Your task to perform on an android device: turn on wifi Image 0: 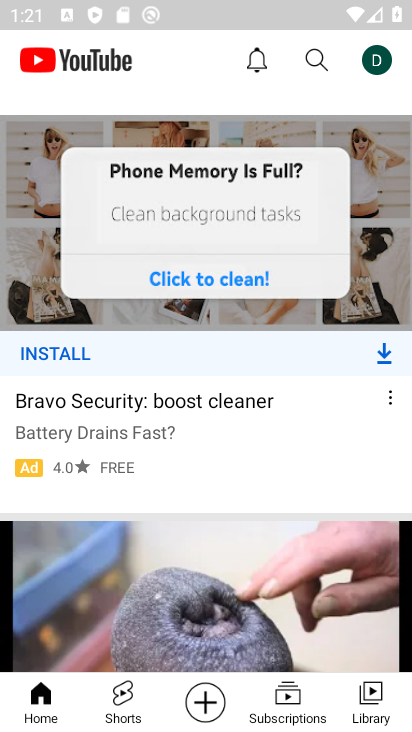
Step 0: drag from (257, 417) to (320, 225)
Your task to perform on an android device: turn on wifi Image 1: 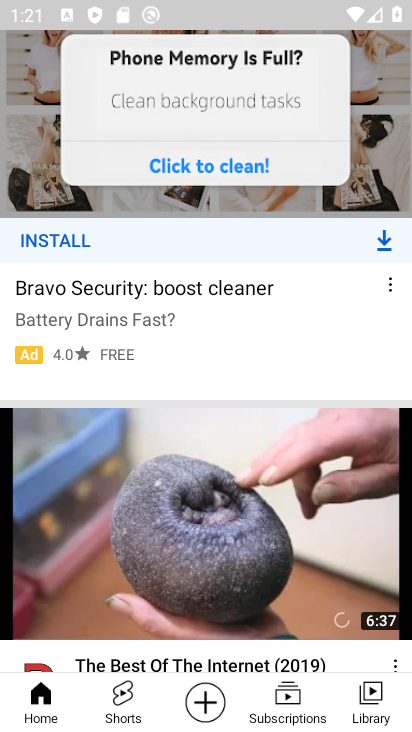
Step 1: press home button
Your task to perform on an android device: turn on wifi Image 2: 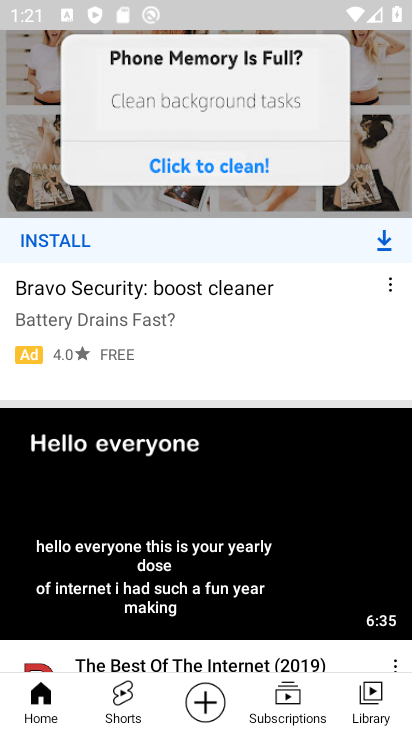
Step 2: click (277, 77)
Your task to perform on an android device: turn on wifi Image 3: 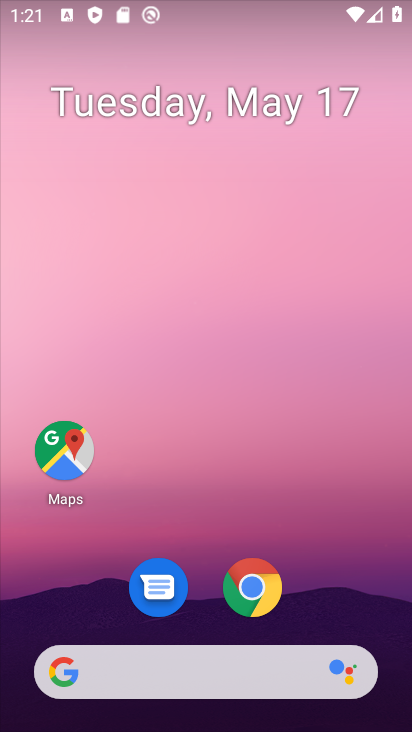
Step 3: drag from (206, 603) to (243, 187)
Your task to perform on an android device: turn on wifi Image 4: 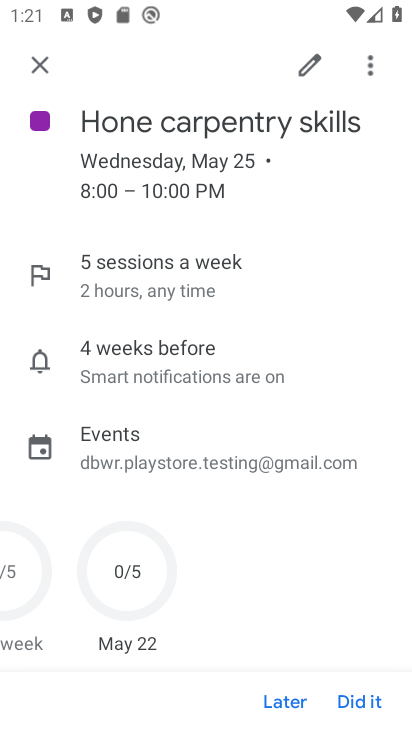
Step 4: drag from (202, 633) to (214, 203)
Your task to perform on an android device: turn on wifi Image 5: 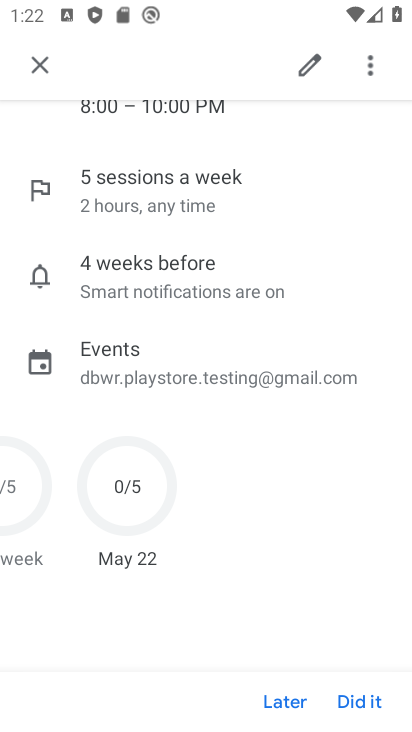
Step 5: click (30, 70)
Your task to perform on an android device: turn on wifi Image 6: 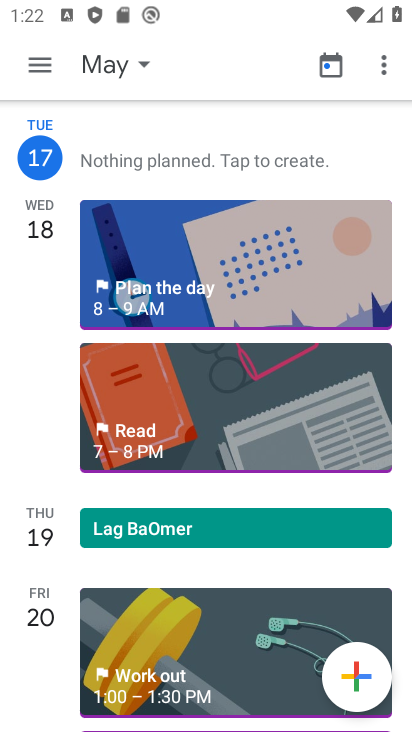
Step 6: drag from (180, 519) to (193, 90)
Your task to perform on an android device: turn on wifi Image 7: 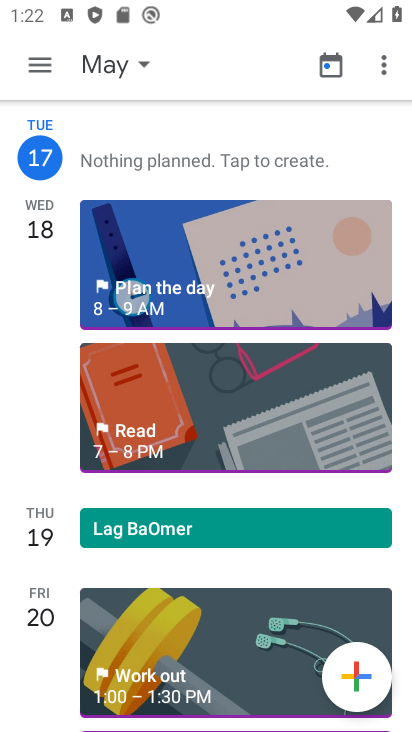
Step 7: press home button
Your task to perform on an android device: turn on wifi Image 8: 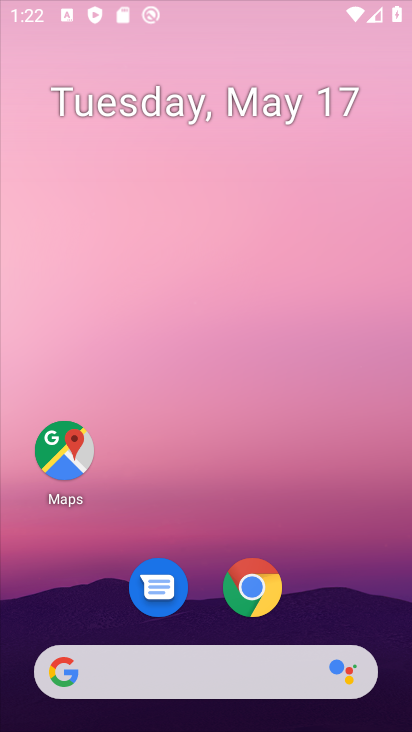
Step 8: drag from (196, 635) to (280, 137)
Your task to perform on an android device: turn on wifi Image 9: 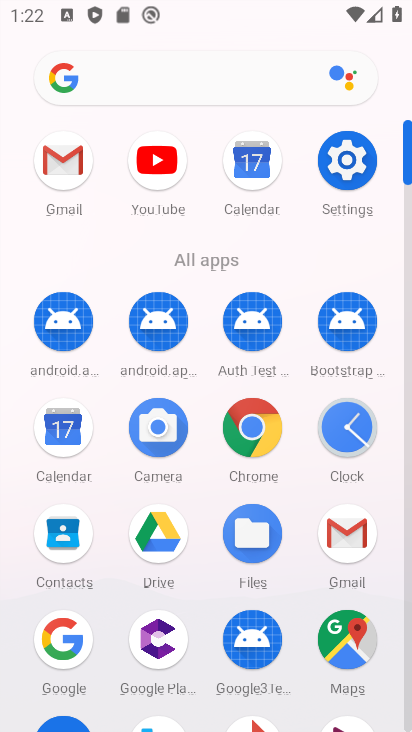
Step 9: click (359, 157)
Your task to perform on an android device: turn on wifi Image 10: 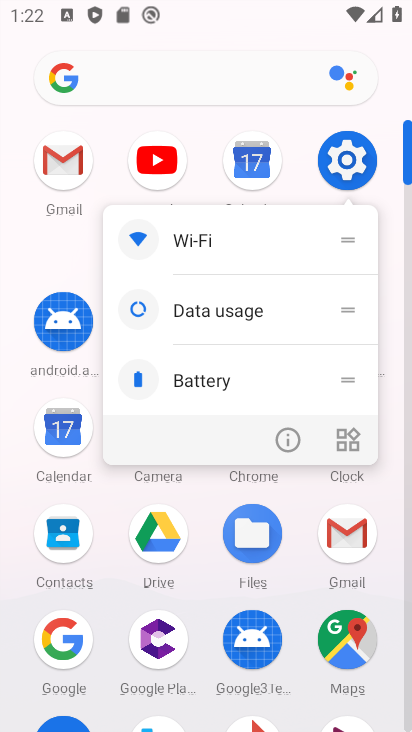
Step 10: click (179, 247)
Your task to perform on an android device: turn on wifi Image 11: 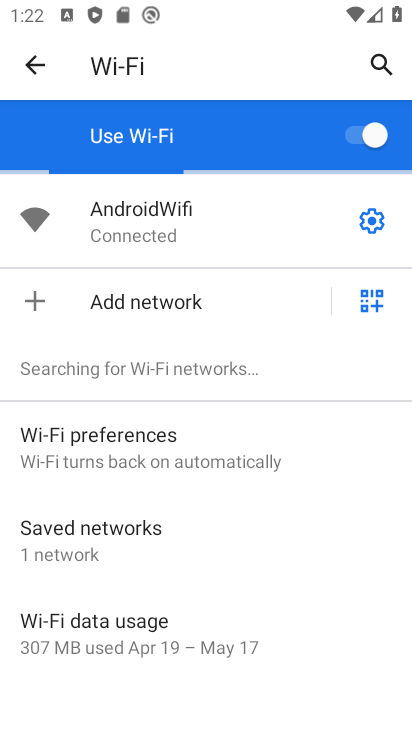
Step 11: task complete